Your task to perform on an android device: open sync settings in chrome Image 0: 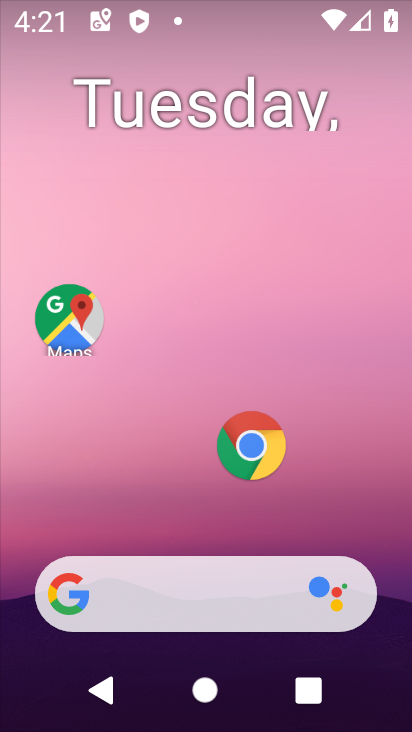
Step 0: drag from (154, 534) to (131, 0)
Your task to perform on an android device: open sync settings in chrome Image 1: 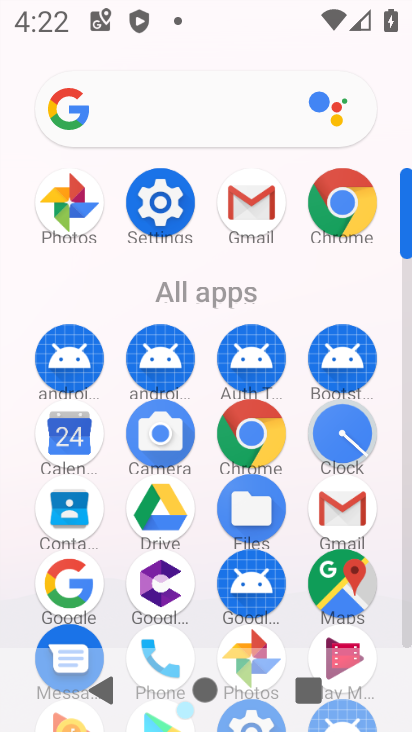
Step 1: drag from (193, 538) to (195, 349)
Your task to perform on an android device: open sync settings in chrome Image 2: 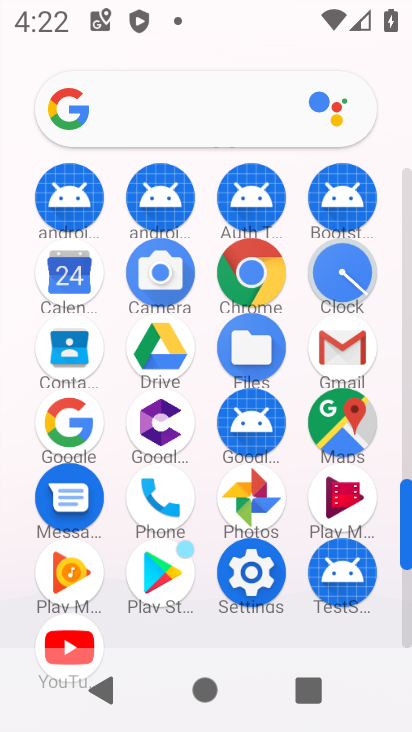
Step 2: click (244, 580)
Your task to perform on an android device: open sync settings in chrome Image 3: 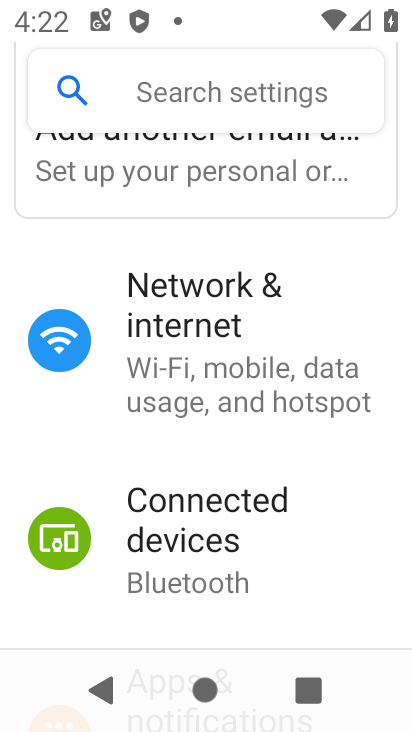
Step 3: press home button
Your task to perform on an android device: open sync settings in chrome Image 4: 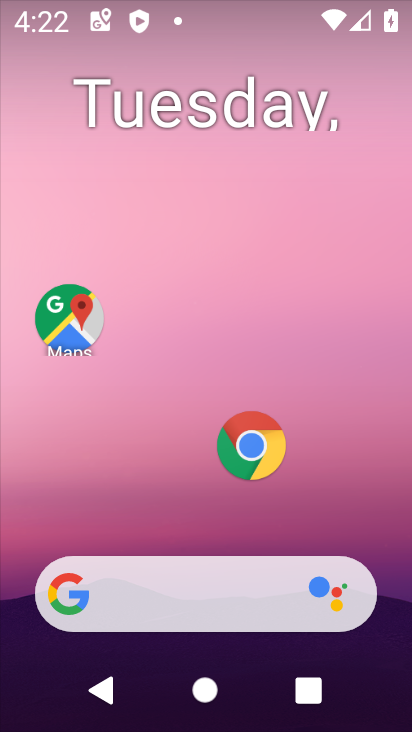
Step 4: click (236, 457)
Your task to perform on an android device: open sync settings in chrome Image 5: 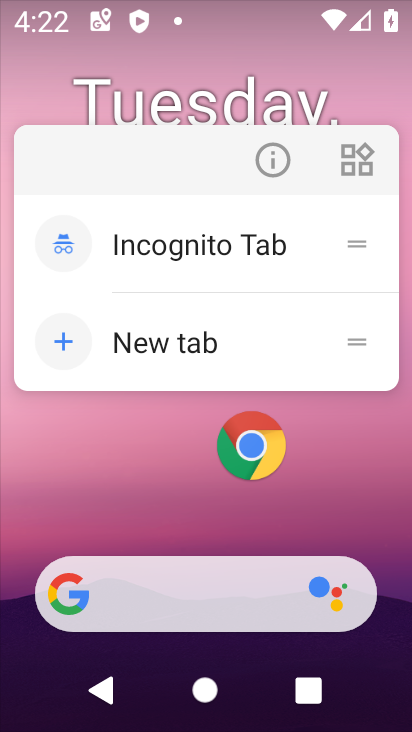
Step 5: click (247, 429)
Your task to perform on an android device: open sync settings in chrome Image 6: 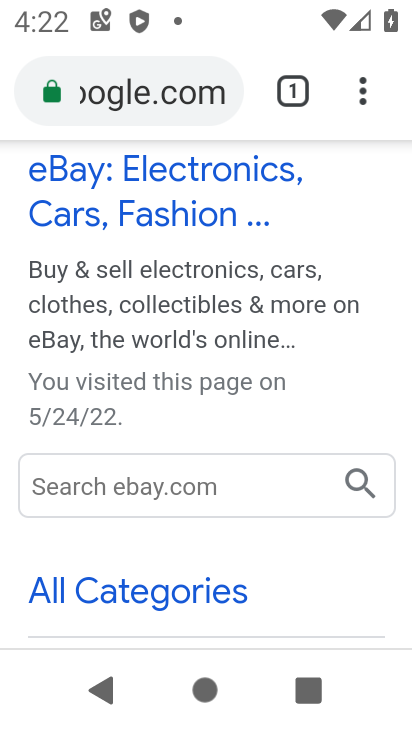
Step 6: click (360, 103)
Your task to perform on an android device: open sync settings in chrome Image 7: 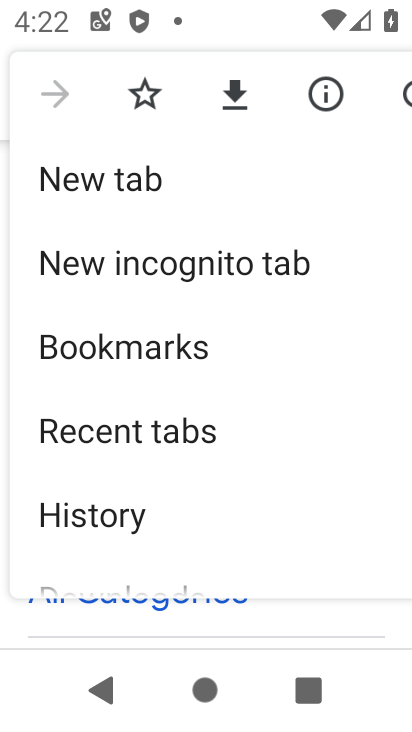
Step 7: drag from (167, 535) to (235, 86)
Your task to perform on an android device: open sync settings in chrome Image 8: 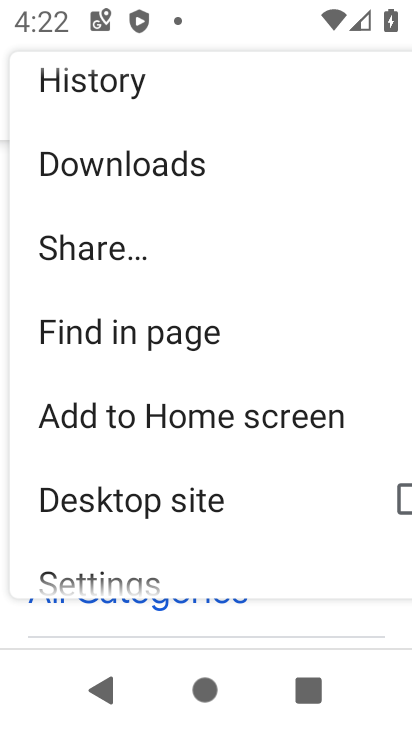
Step 8: drag from (201, 462) to (238, 135)
Your task to perform on an android device: open sync settings in chrome Image 9: 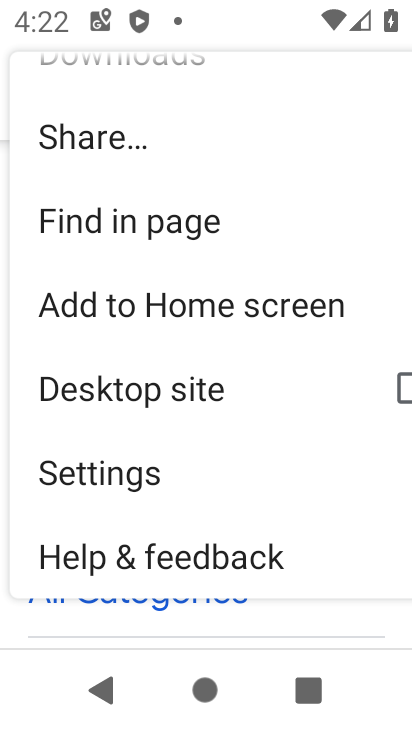
Step 9: click (130, 484)
Your task to perform on an android device: open sync settings in chrome Image 10: 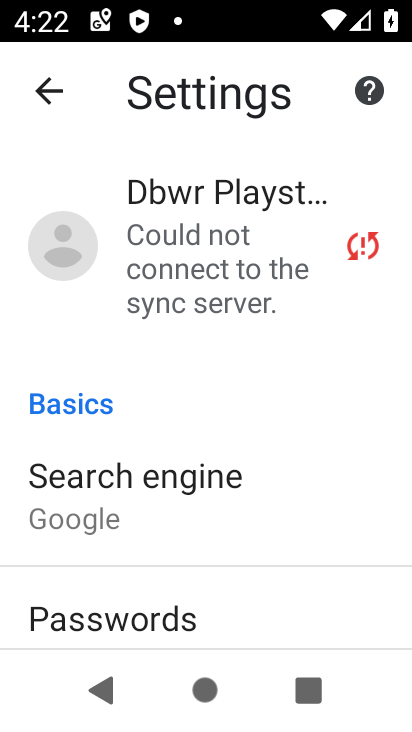
Step 10: click (221, 299)
Your task to perform on an android device: open sync settings in chrome Image 11: 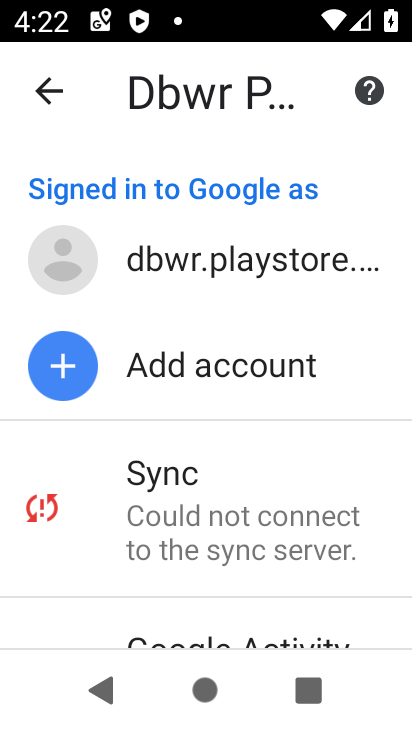
Step 11: click (201, 487)
Your task to perform on an android device: open sync settings in chrome Image 12: 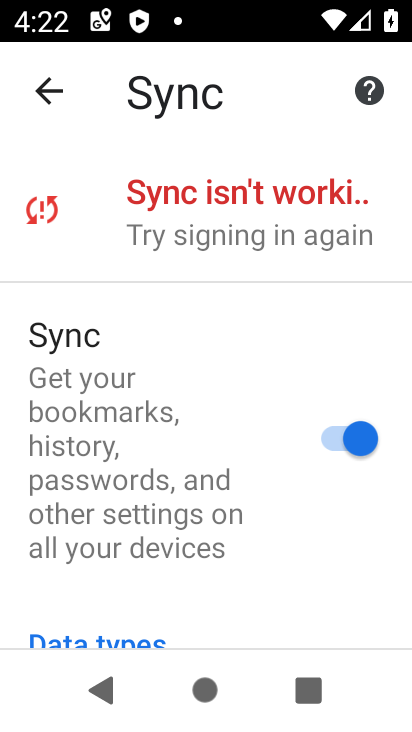
Step 12: task complete